Your task to perform on an android device: Search for sushi restaurants on Maps Image 0: 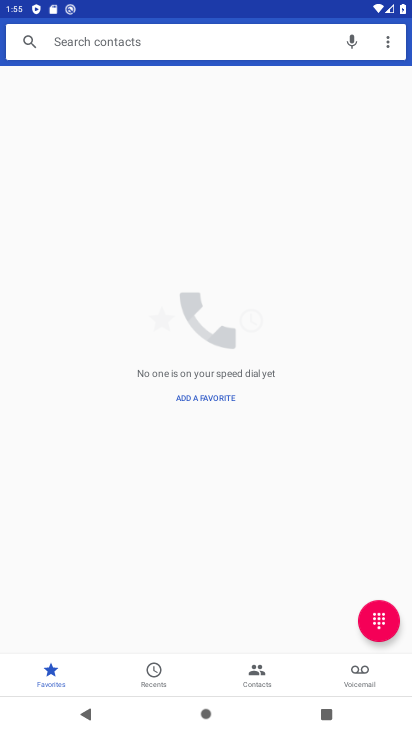
Step 0: press home button
Your task to perform on an android device: Search for sushi restaurants on Maps Image 1: 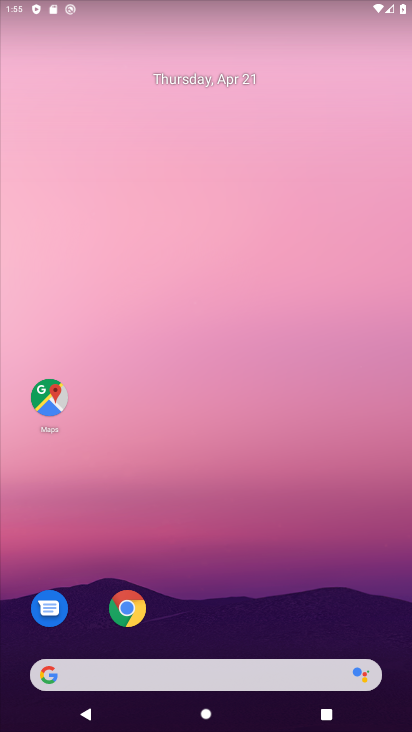
Step 1: click (49, 404)
Your task to perform on an android device: Search for sushi restaurants on Maps Image 2: 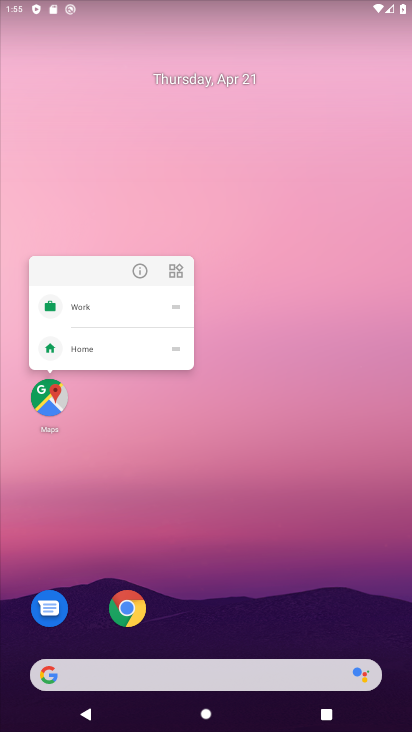
Step 2: click (49, 404)
Your task to perform on an android device: Search for sushi restaurants on Maps Image 3: 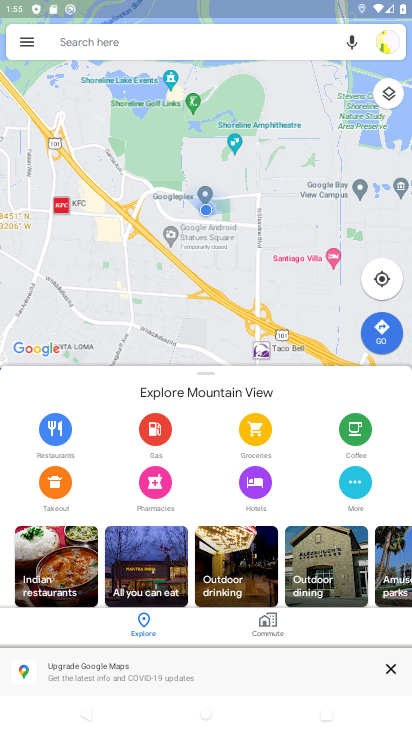
Step 3: click (200, 46)
Your task to perform on an android device: Search for sushi restaurants on Maps Image 4: 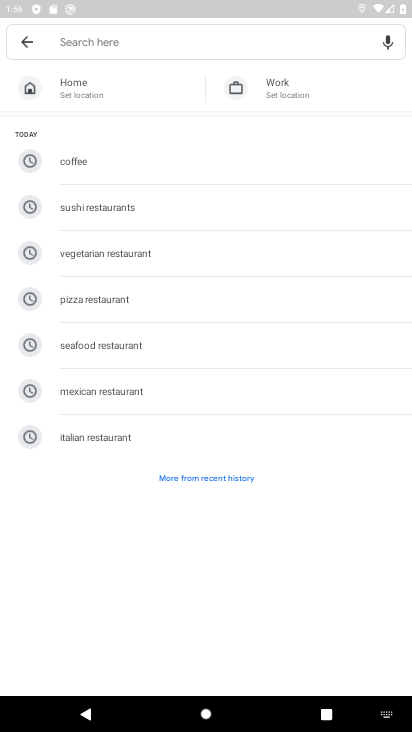
Step 4: type "sushi restaurants"
Your task to perform on an android device: Search for sushi restaurants on Maps Image 5: 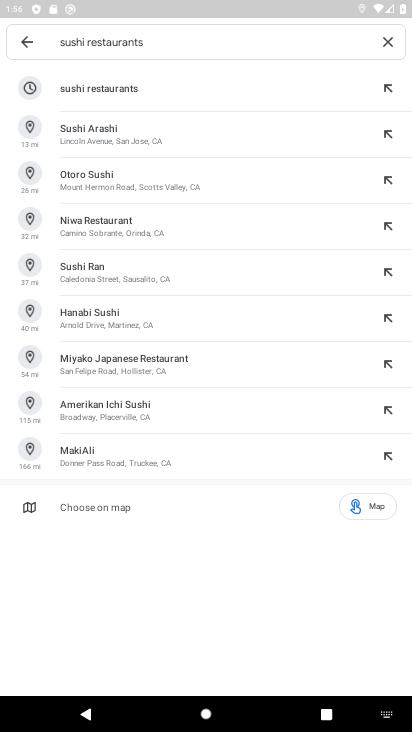
Step 5: click (123, 91)
Your task to perform on an android device: Search for sushi restaurants on Maps Image 6: 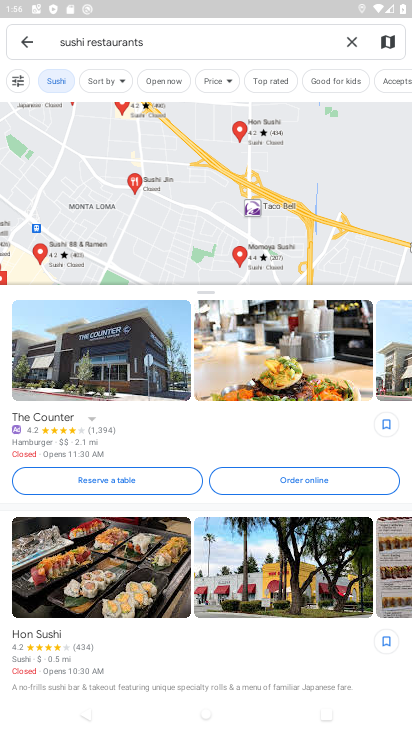
Step 6: task complete